Your task to perform on an android device: open a bookmark in the chrome app Image 0: 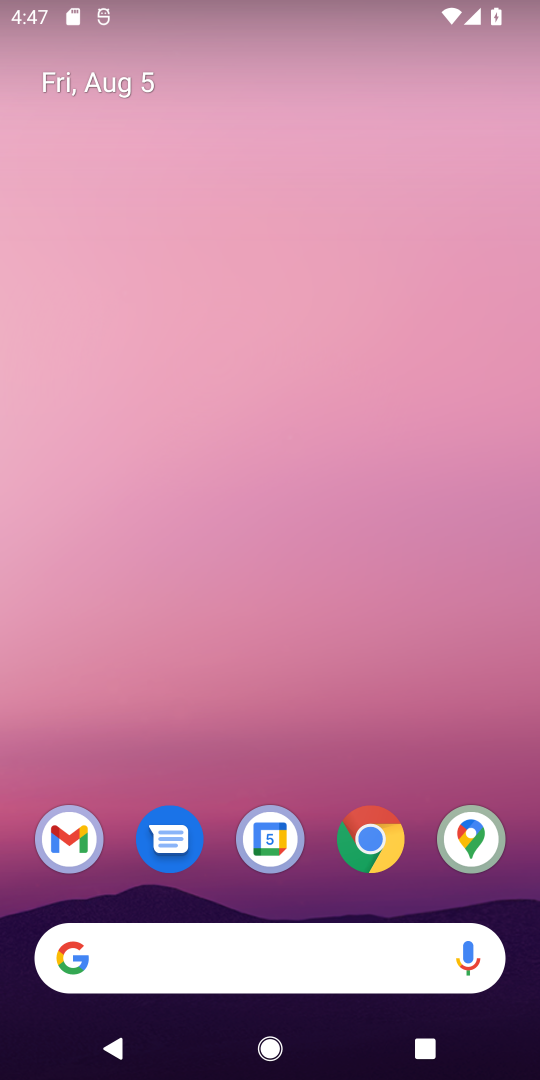
Step 0: click (362, 831)
Your task to perform on an android device: open a bookmark in the chrome app Image 1: 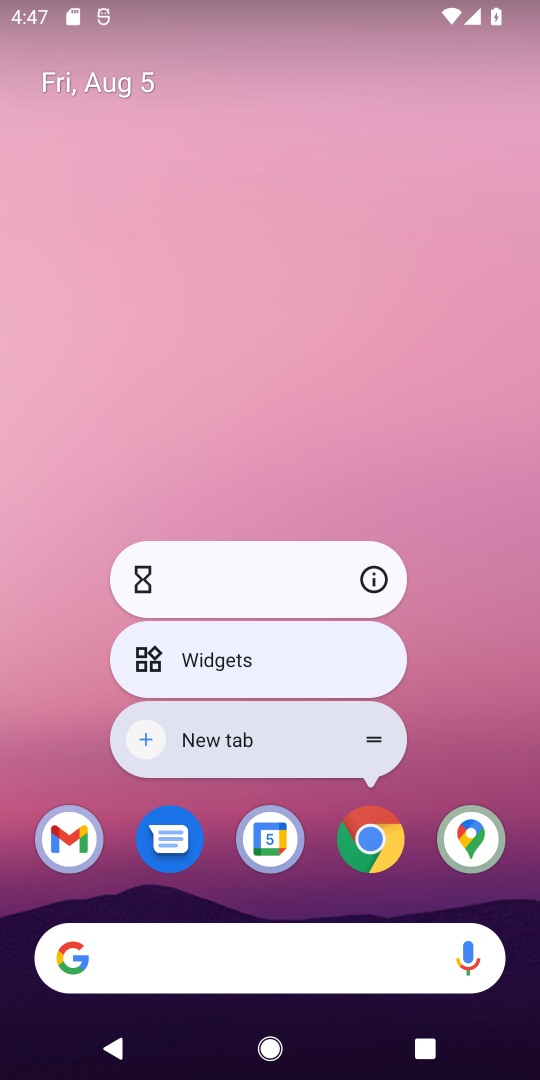
Step 1: click (362, 831)
Your task to perform on an android device: open a bookmark in the chrome app Image 2: 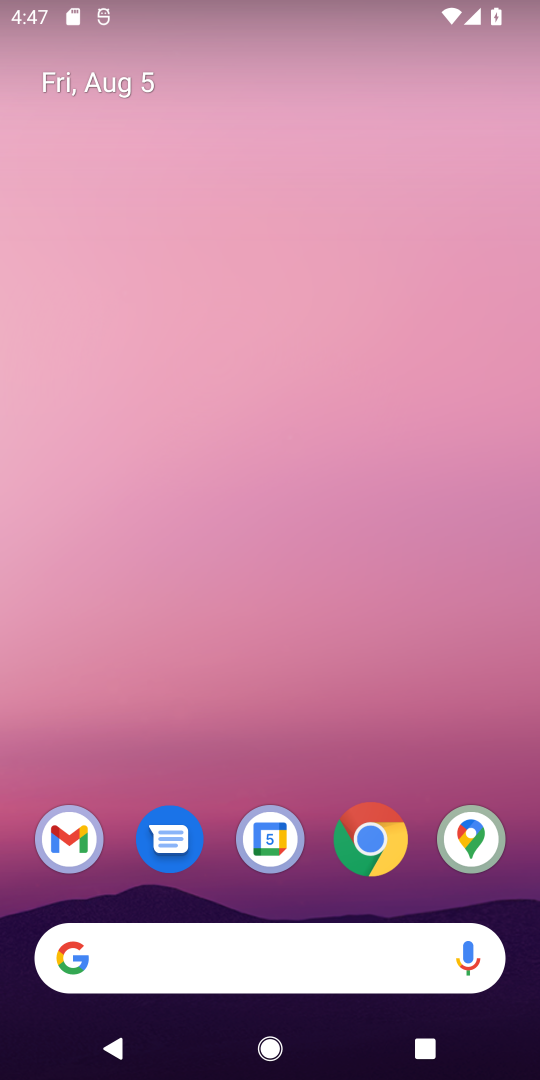
Step 2: click (338, 844)
Your task to perform on an android device: open a bookmark in the chrome app Image 3: 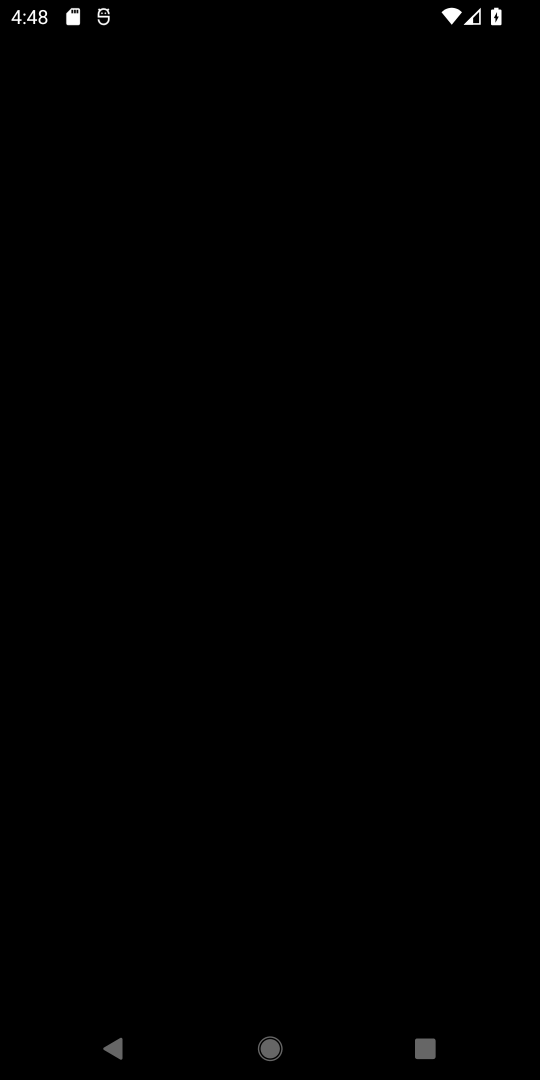
Step 3: task complete